Your task to perform on an android device: Open Youtube and go to the subscriptions tab Image 0: 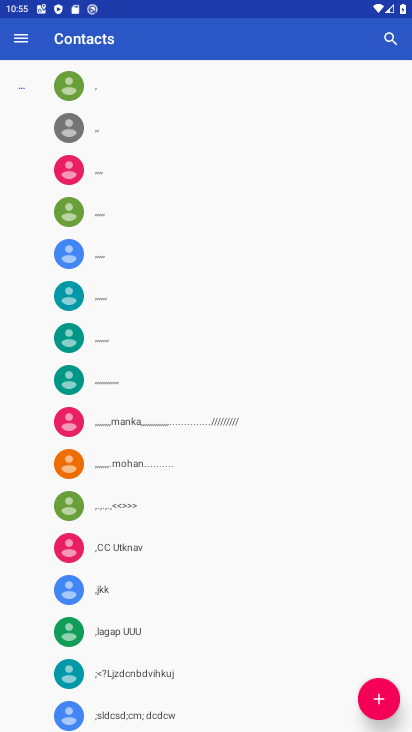
Step 0: press home button
Your task to perform on an android device: Open Youtube and go to the subscriptions tab Image 1: 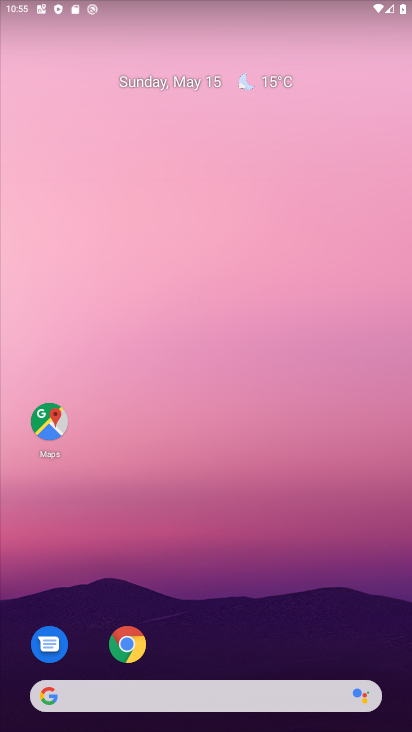
Step 1: drag from (292, 622) to (247, 111)
Your task to perform on an android device: Open Youtube and go to the subscriptions tab Image 2: 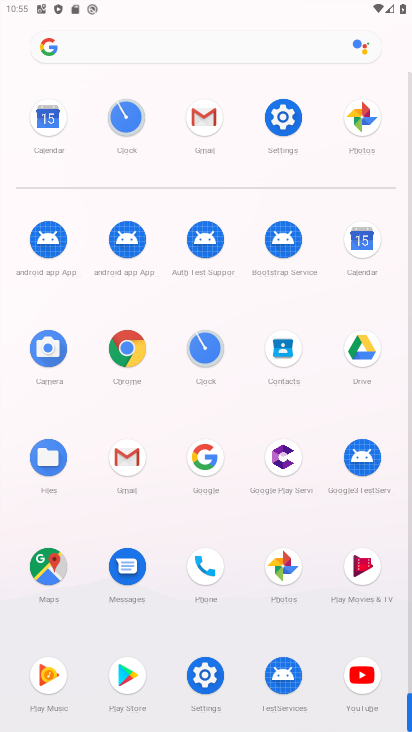
Step 2: click (362, 682)
Your task to perform on an android device: Open Youtube and go to the subscriptions tab Image 3: 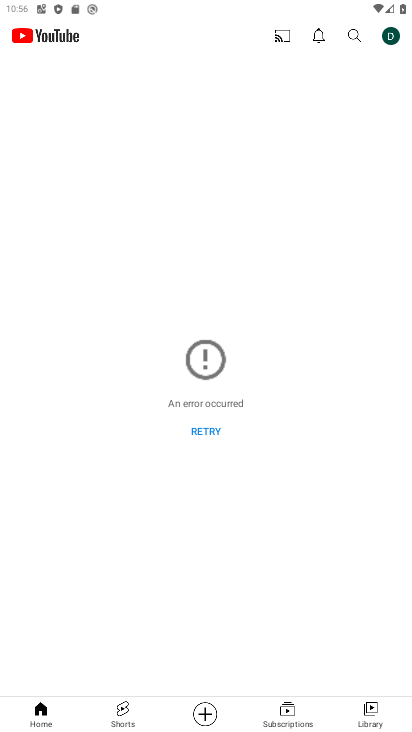
Step 3: click (290, 716)
Your task to perform on an android device: Open Youtube and go to the subscriptions tab Image 4: 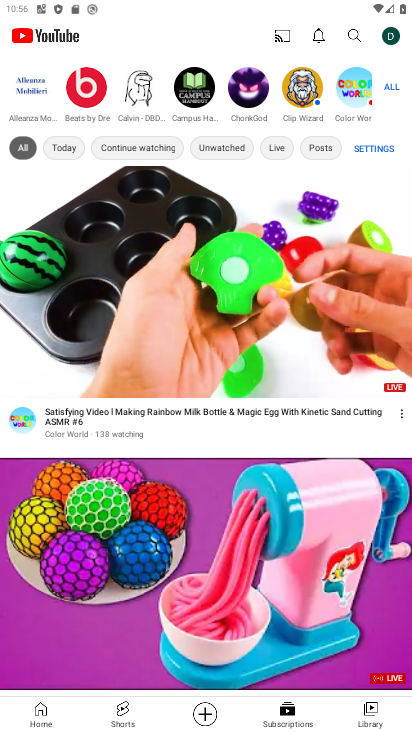
Step 4: task complete